Your task to perform on an android device: turn off priority inbox in the gmail app Image 0: 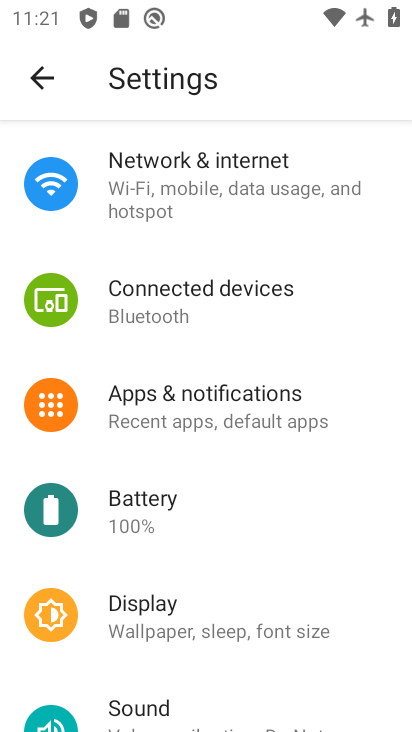
Step 0: press home button
Your task to perform on an android device: turn off priority inbox in the gmail app Image 1: 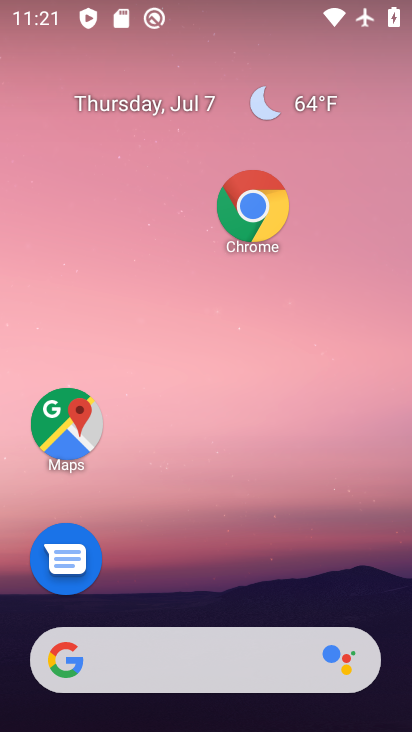
Step 1: drag from (160, 629) to (170, 214)
Your task to perform on an android device: turn off priority inbox in the gmail app Image 2: 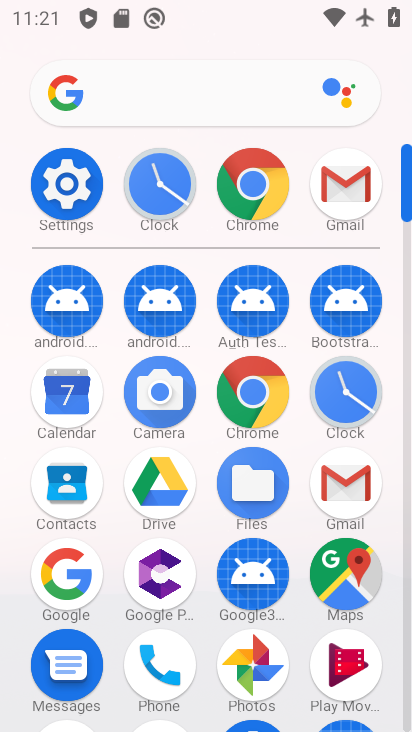
Step 2: click (353, 191)
Your task to perform on an android device: turn off priority inbox in the gmail app Image 3: 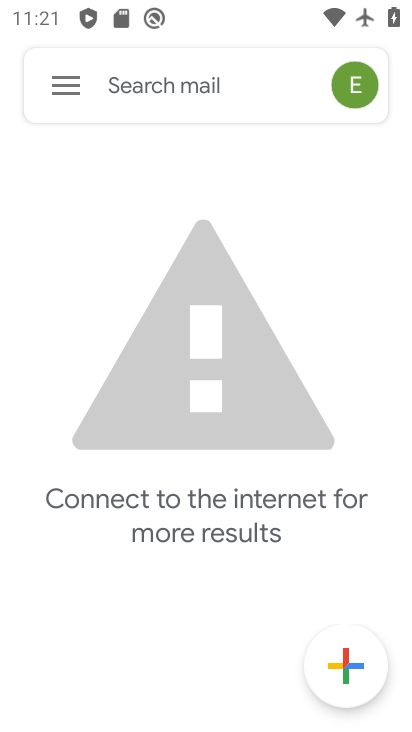
Step 3: click (53, 92)
Your task to perform on an android device: turn off priority inbox in the gmail app Image 4: 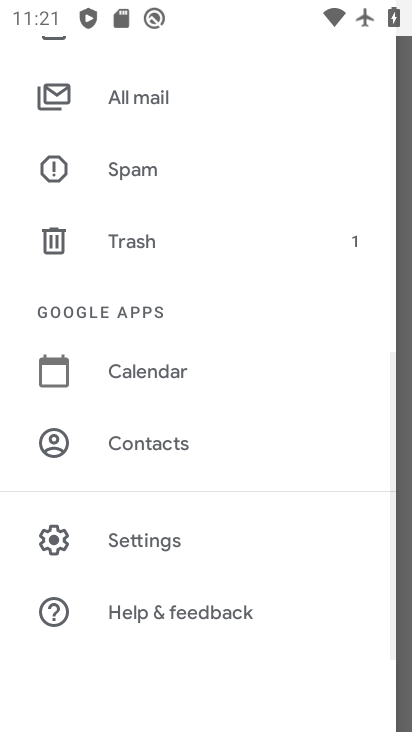
Step 4: click (157, 535)
Your task to perform on an android device: turn off priority inbox in the gmail app Image 5: 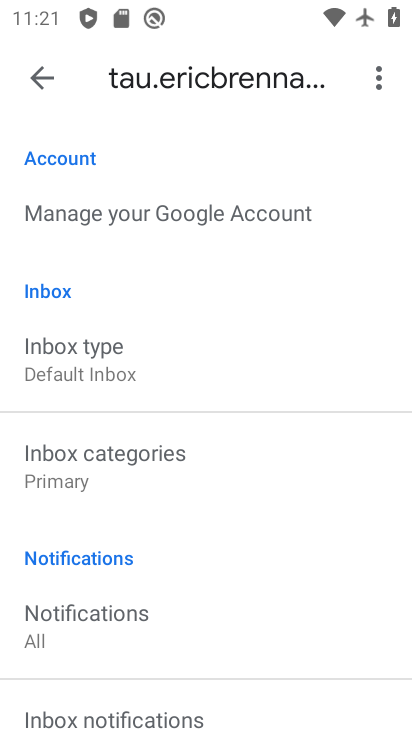
Step 5: click (58, 358)
Your task to perform on an android device: turn off priority inbox in the gmail app Image 6: 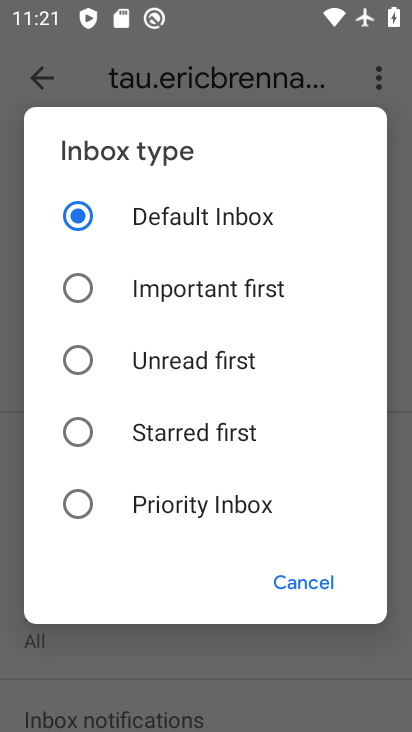
Step 6: click (143, 498)
Your task to perform on an android device: turn off priority inbox in the gmail app Image 7: 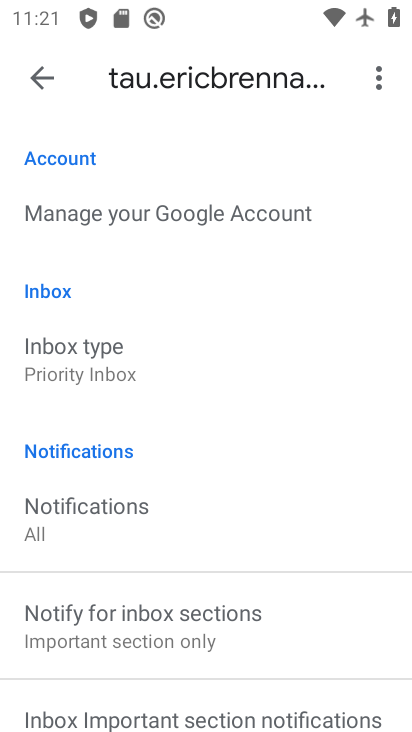
Step 7: task complete